Your task to perform on an android device: Open Google Maps and go to "Timeline" Image 0: 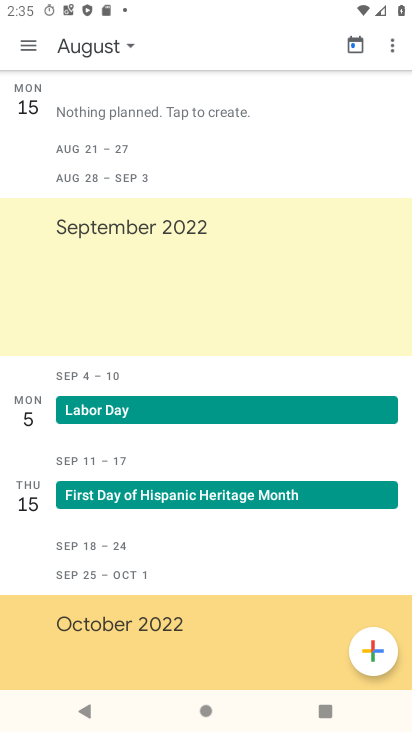
Step 0: press home button
Your task to perform on an android device: Open Google Maps and go to "Timeline" Image 1: 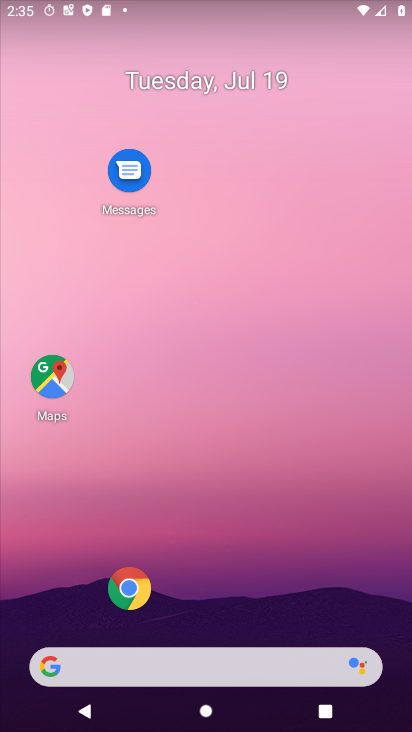
Step 1: click (59, 359)
Your task to perform on an android device: Open Google Maps and go to "Timeline" Image 2: 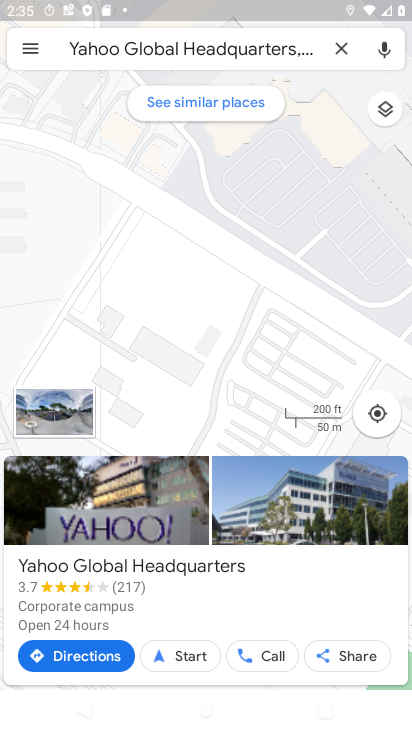
Step 2: click (26, 39)
Your task to perform on an android device: Open Google Maps and go to "Timeline" Image 3: 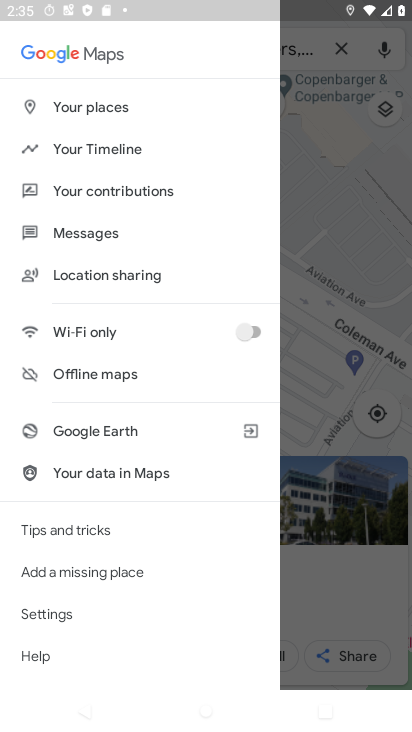
Step 3: click (76, 150)
Your task to perform on an android device: Open Google Maps and go to "Timeline" Image 4: 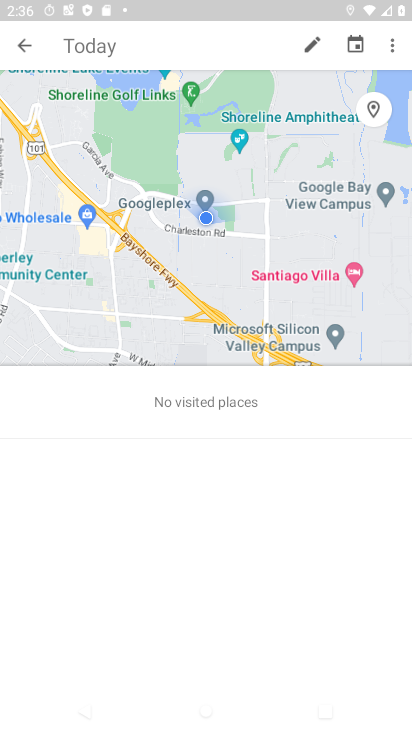
Step 4: task complete